Your task to perform on an android device: Search for "logitech g502" on walmart.com, select the first entry, add it to the cart, then select checkout. Image 0: 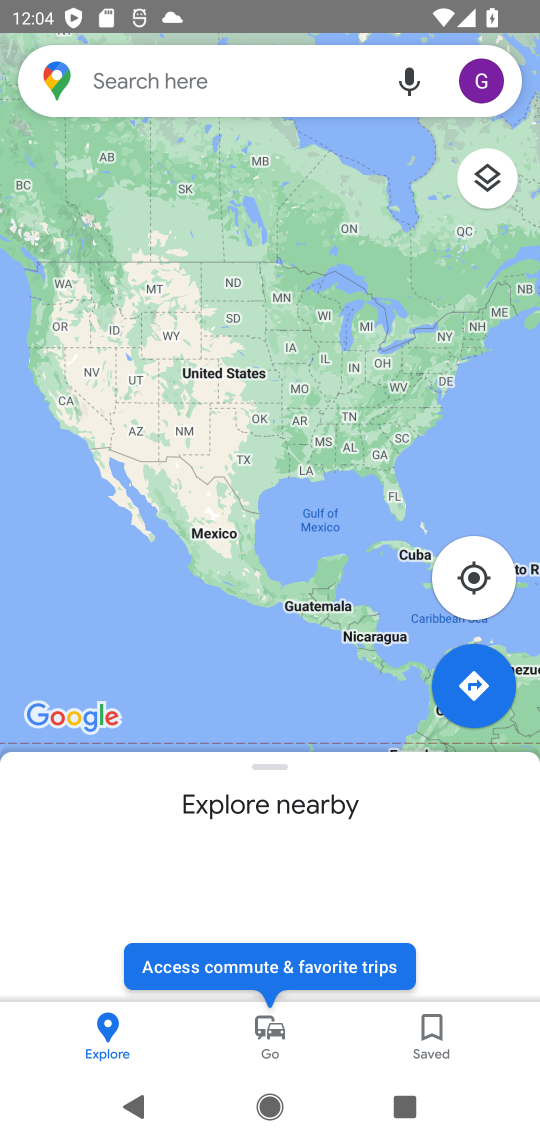
Step 0: press home button
Your task to perform on an android device: Search for "logitech g502" on walmart.com, select the first entry, add it to the cart, then select checkout. Image 1: 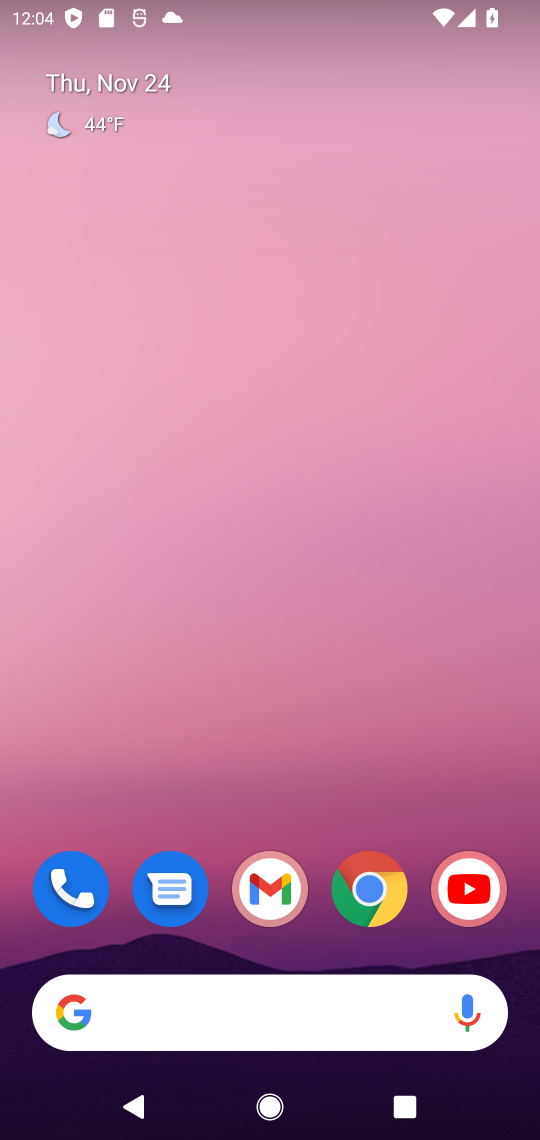
Step 1: click (366, 898)
Your task to perform on an android device: Search for "logitech g502" on walmart.com, select the first entry, add it to the cart, then select checkout. Image 2: 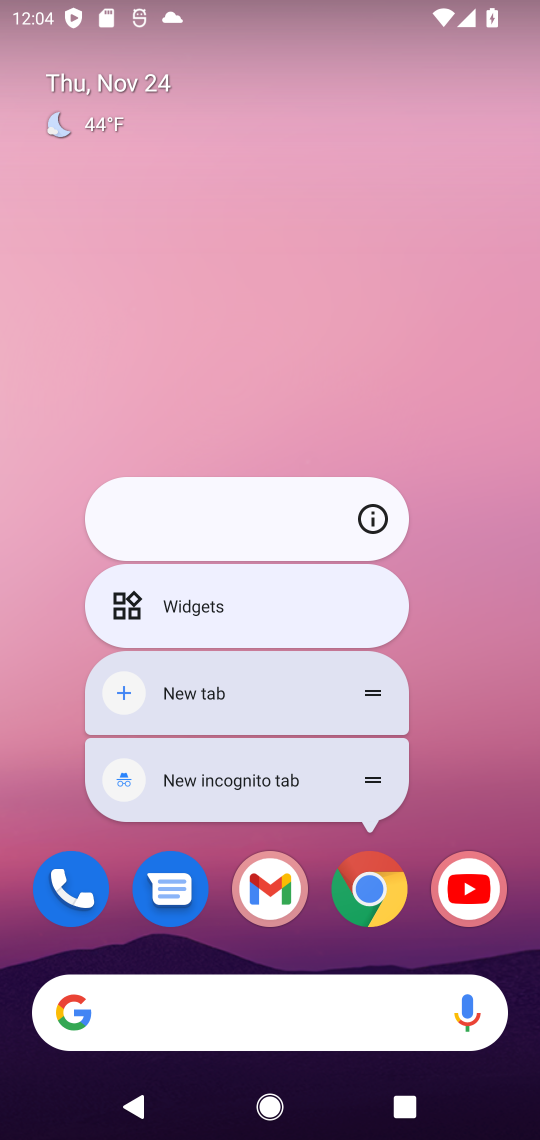
Step 2: click (366, 898)
Your task to perform on an android device: Search for "logitech g502" on walmart.com, select the first entry, add it to the cart, then select checkout. Image 3: 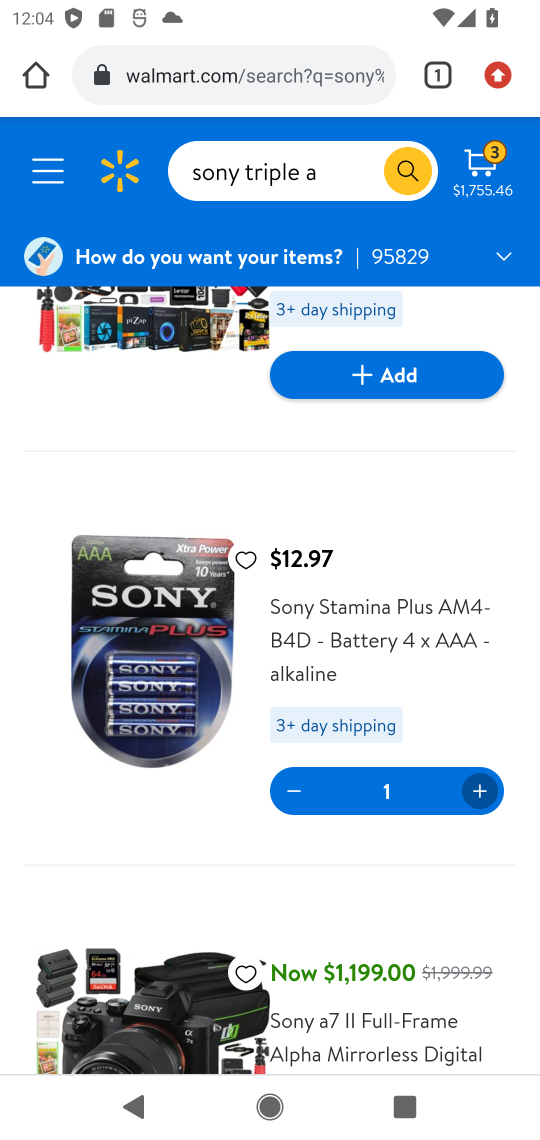
Step 3: click (259, 75)
Your task to perform on an android device: Search for "logitech g502" on walmart.com, select the first entry, add it to the cart, then select checkout. Image 4: 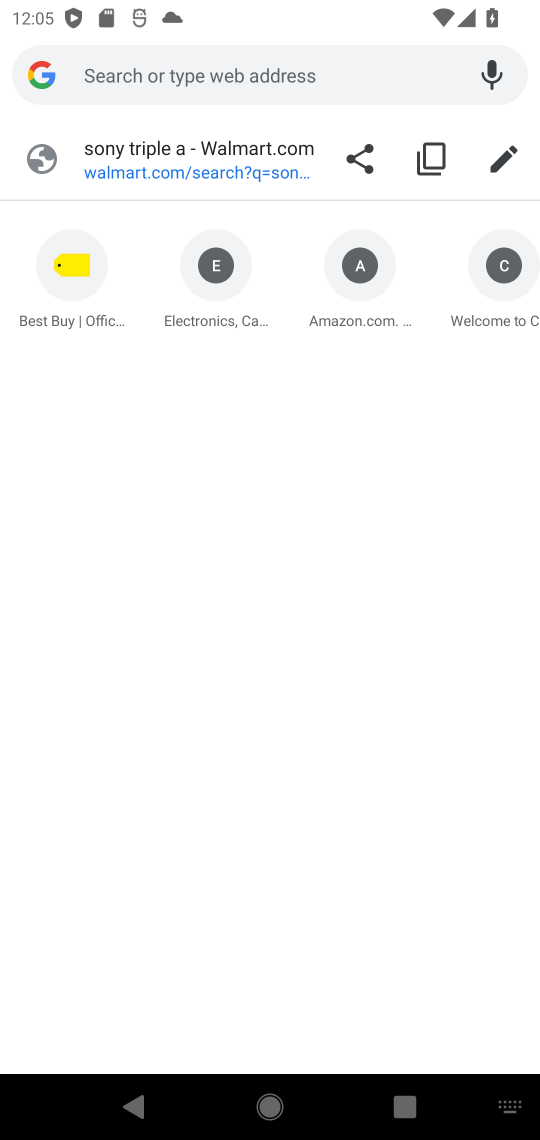
Step 4: type "walmart.com"
Your task to perform on an android device: Search for "logitech g502" on walmart.com, select the first entry, add it to the cart, then select checkout. Image 5: 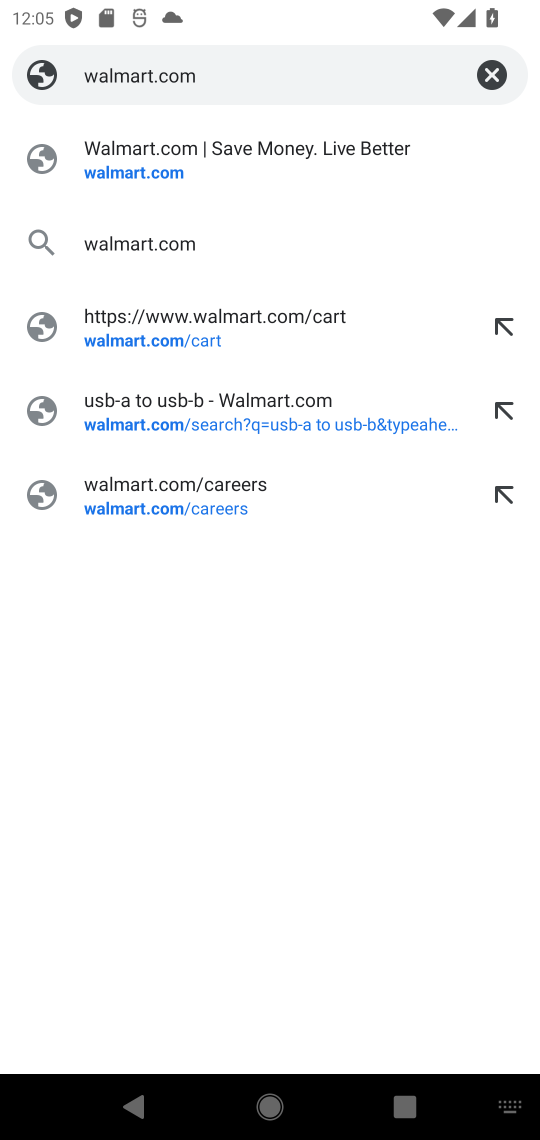
Step 5: click (129, 176)
Your task to perform on an android device: Search for "logitech g502" on walmart.com, select the first entry, add it to the cart, then select checkout. Image 6: 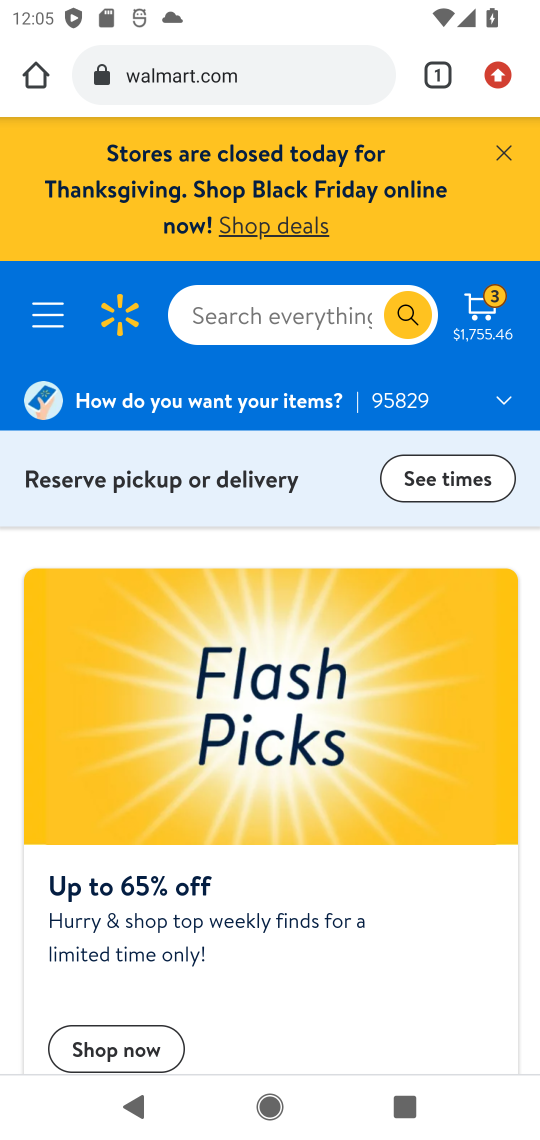
Step 6: click (208, 315)
Your task to perform on an android device: Search for "logitech g502" on walmart.com, select the first entry, add it to the cart, then select checkout. Image 7: 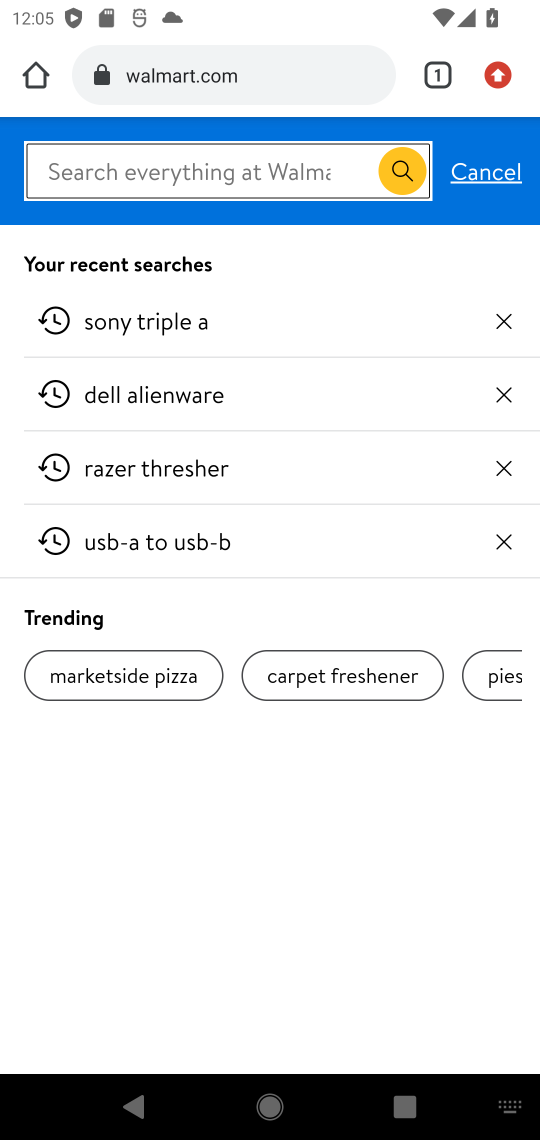
Step 7: type "logitech g502"
Your task to perform on an android device: Search for "logitech g502" on walmart.com, select the first entry, add it to the cart, then select checkout. Image 8: 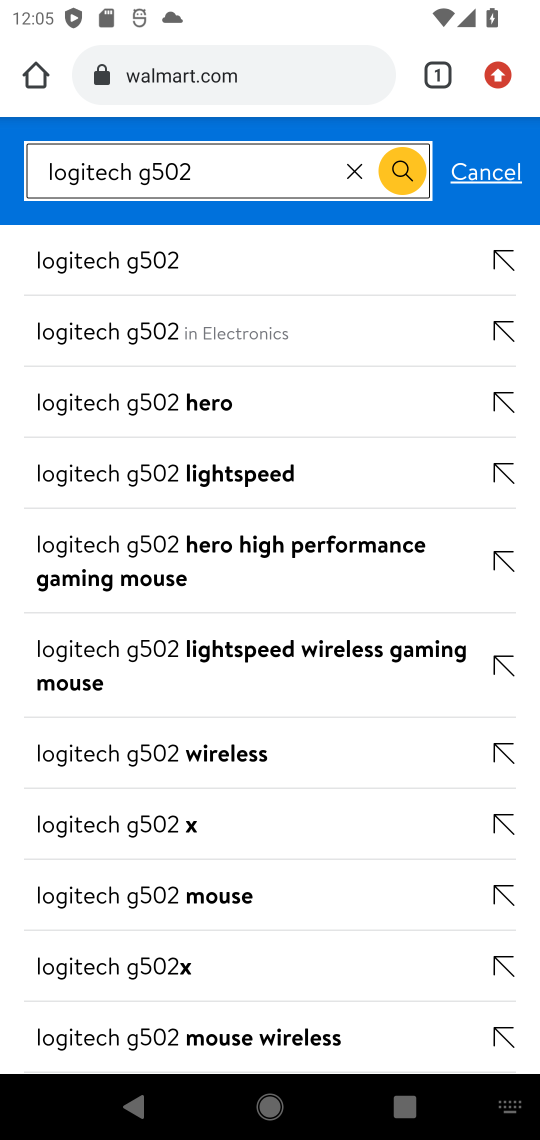
Step 8: click (133, 270)
Your task to perform on an android device: Search for "logitech g502" on walmart.com, select the first entry, add it to the cart, then select checkout. Image 9: 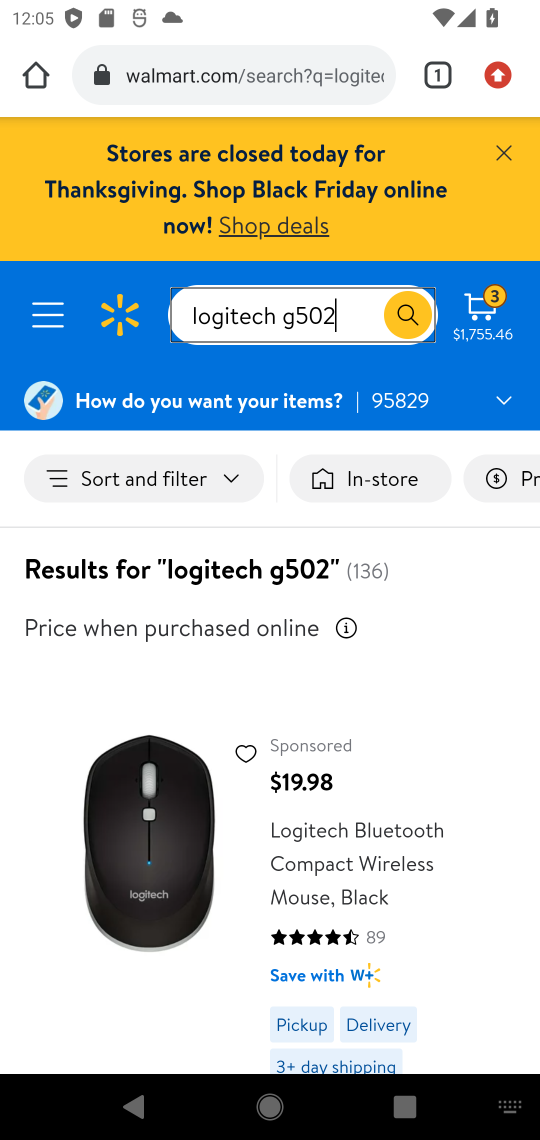
Step 9: drag from (261, 648) to (259, 444)
Your task to perform on an android device: Search for "logitech g502" on walmart.com, select the first entry, add it to the cart, then select checkout. Image 10: 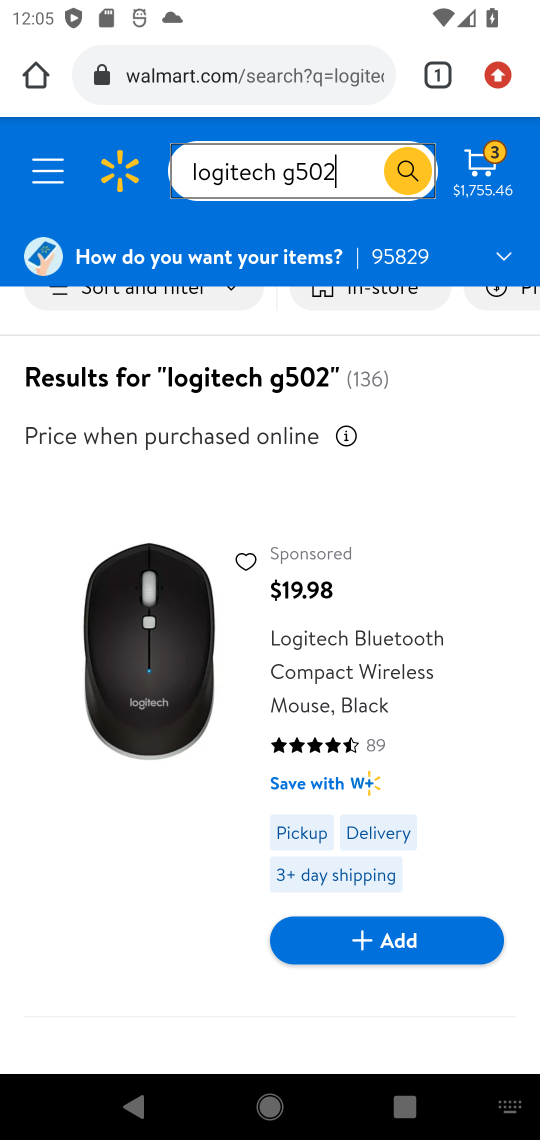
Step 10: click (208, 685)
Your task to perform on an android device: Search for "logitech g502" on walmart.com, select the first entry, add it to the cart, then select checkout. Image 11: 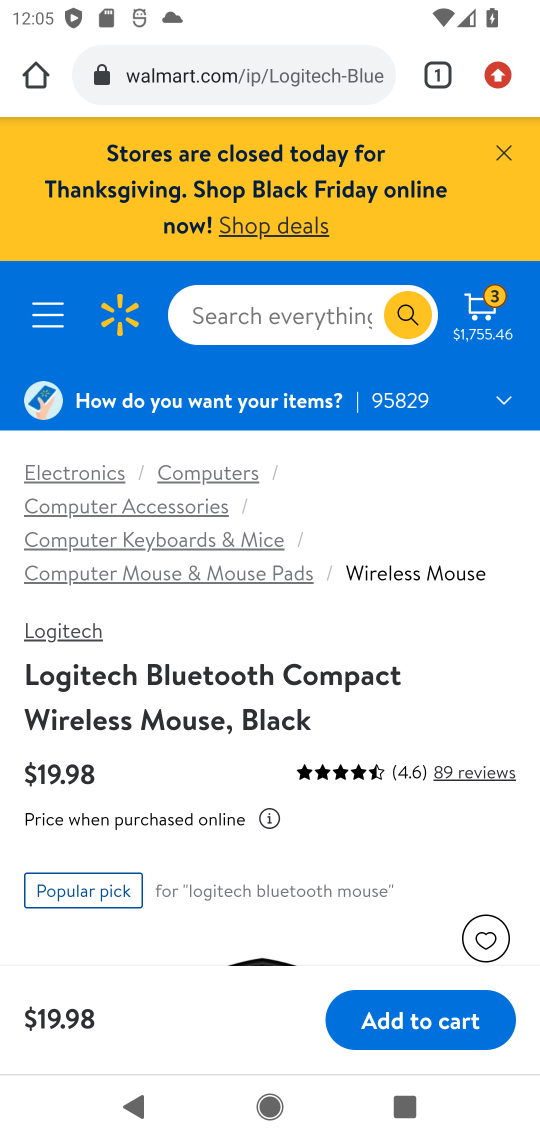
Step 11: task complete